Your task to perform on an android device: change your default location settings in chrome Image 0: 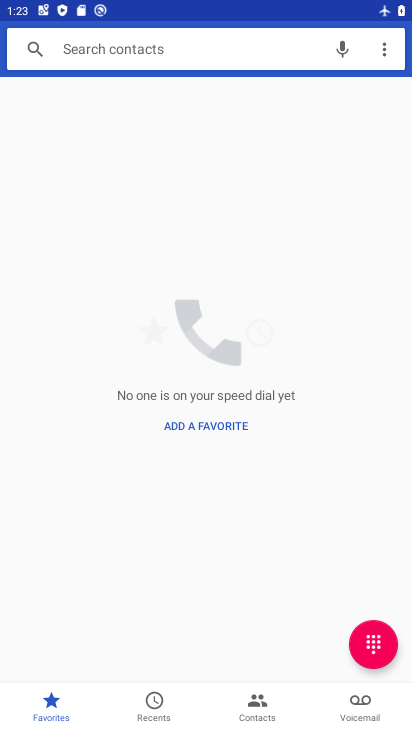
Step 0: press home button
Your task to perform on an android device: change your default location settings in chrome Image 1: 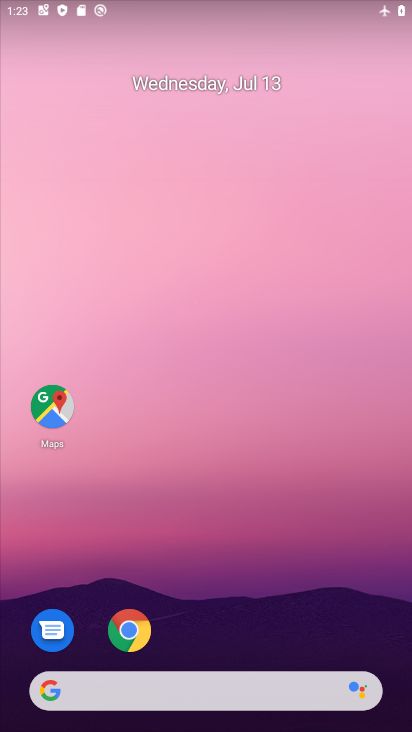
Step 1: drag from (334, 595) to (339, 80)
Your task to perform on an android device: change your default location settings in chrome Image 2: 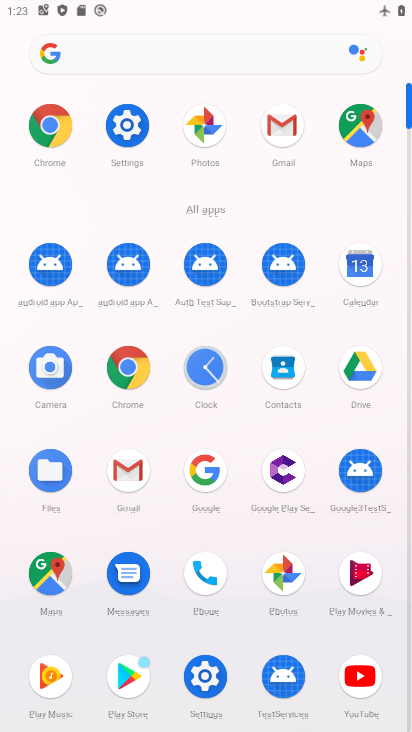
Step 2: click (129, 372)
Your task to perform on an android device: change your default location settings in chrome Image 3: 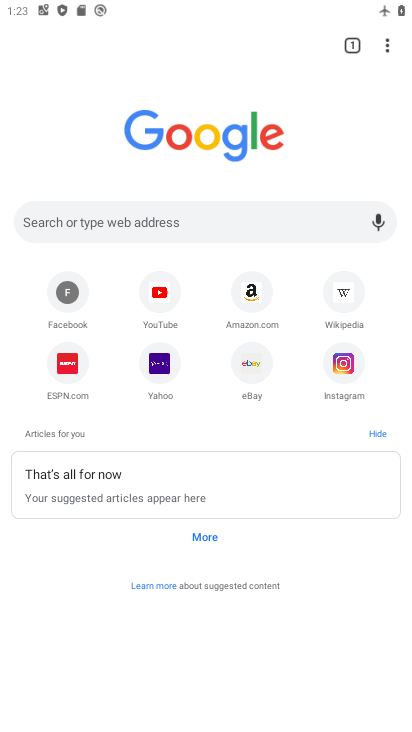
Step 3: click (383, 46)
Your task to perform on an android device: change your default location settings in chrome Image 4: 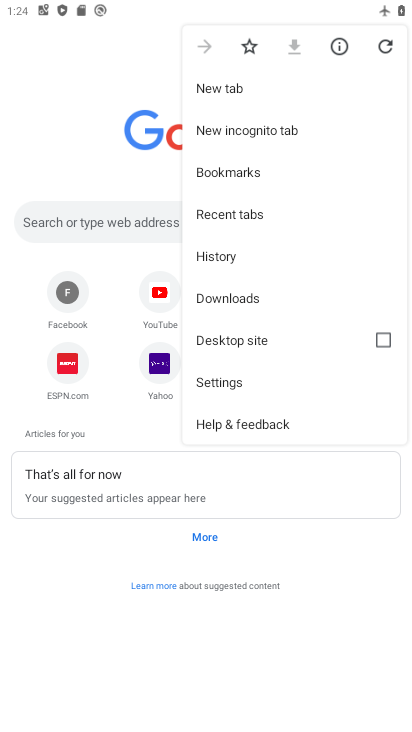
Step 4: click (244, 383)
Your task to perform on an android device: change your default location settings in chrome Image 5: 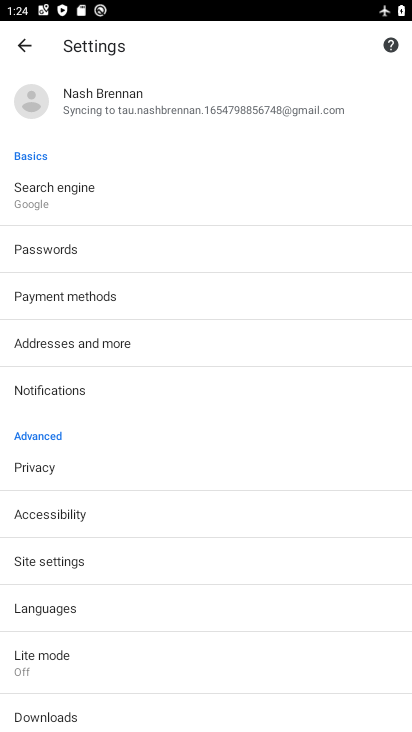
Step 5: drag from (236, 512) to (242, 323)
Your task to perform on an android device: change your default location settings in chrome Image 6: 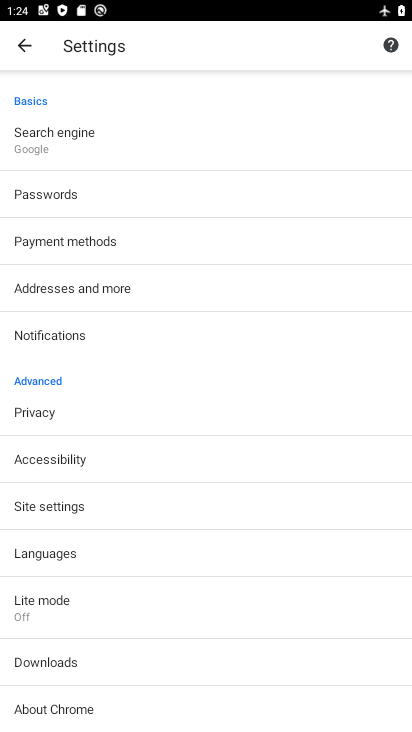
Step 6: drag from (252, 504) to (253, 324)
Your task to perform on an android device: change your default location settings in chrome Image 7: 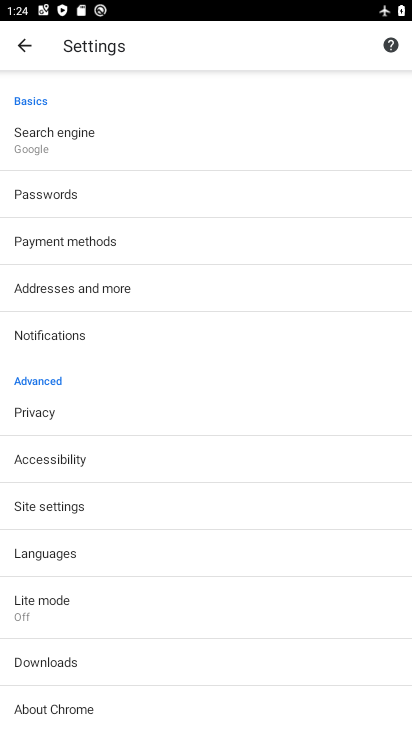
Step 7: drag from (264, 268) to (274, 398)
Your task to perform on an android device: change your default location settings in chrome Image 8: 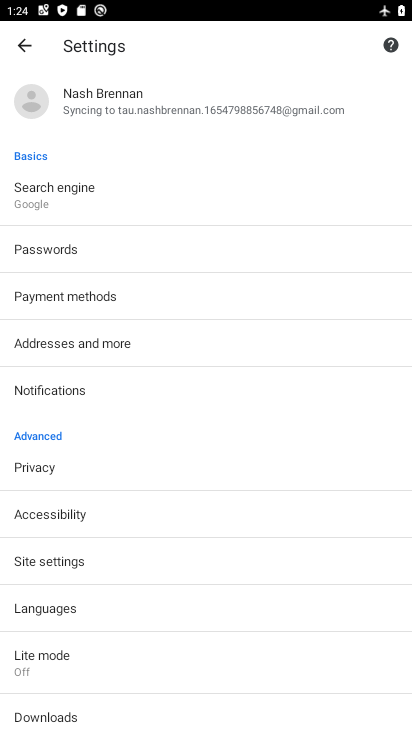
Step 8: drag from (270, 500) to (270, 318)
Your task to perform on an android device: change your default location settings in chrome Image 9: 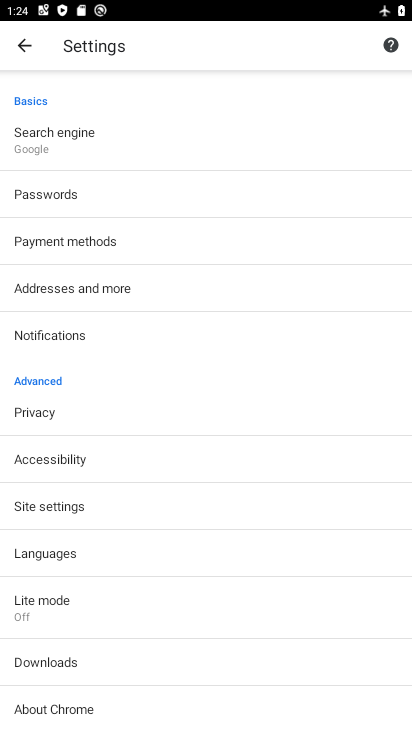
Step 9: click (233, 508)
Your task to perform on an android device: change your default location settings in chrome Image 10: 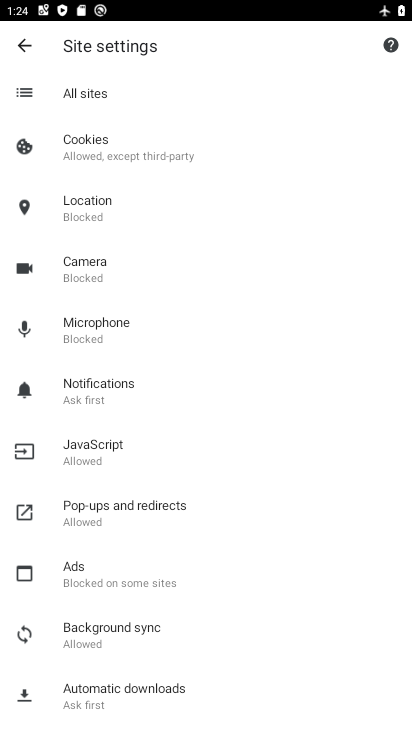
Step 10: click (135, 216)
Your task to perform on an android device: change your default location settings in chrome Image 11: 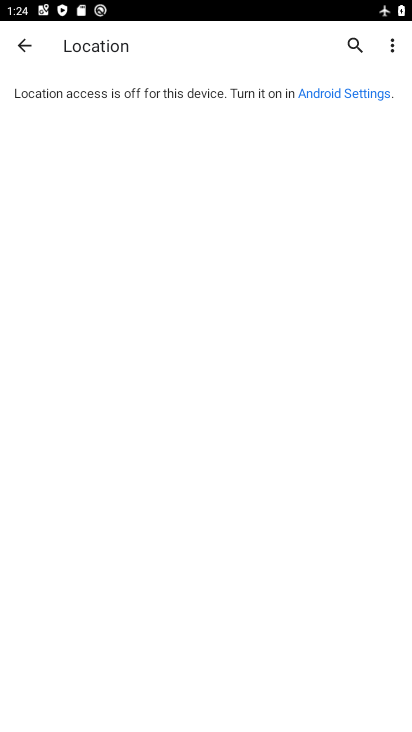
Step 11: click (333, 94)
Your task to perform on an android device: change your default location settings in chrome Image 12: 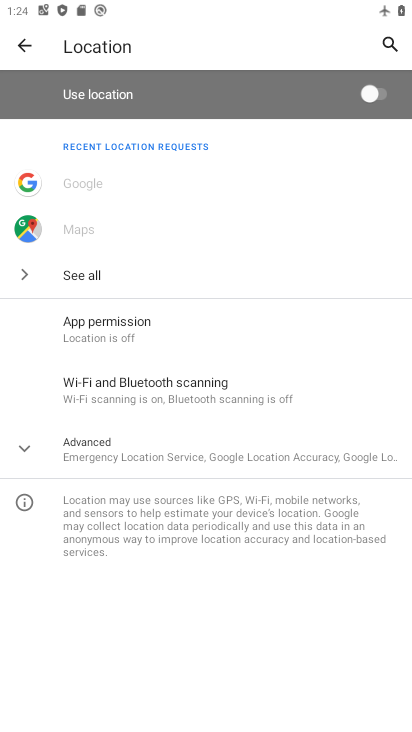
Step 12: click (368, 84)
Your task to perform on an android device: change your default location settings in chrome Image 13: 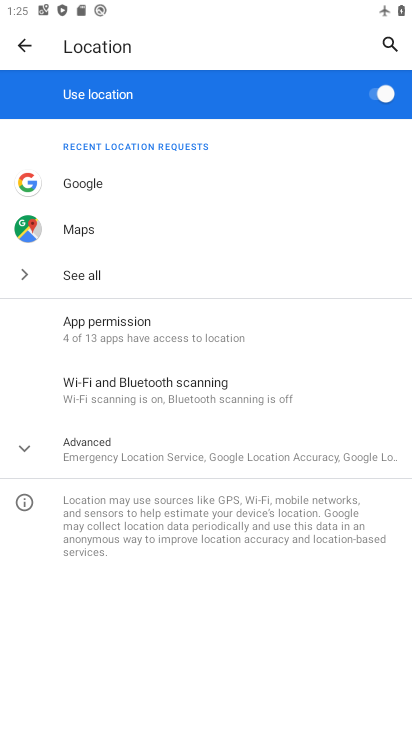
Step 13: task complete